Your task to perform on an android device: move a message to another label in the gmail app Image 0: 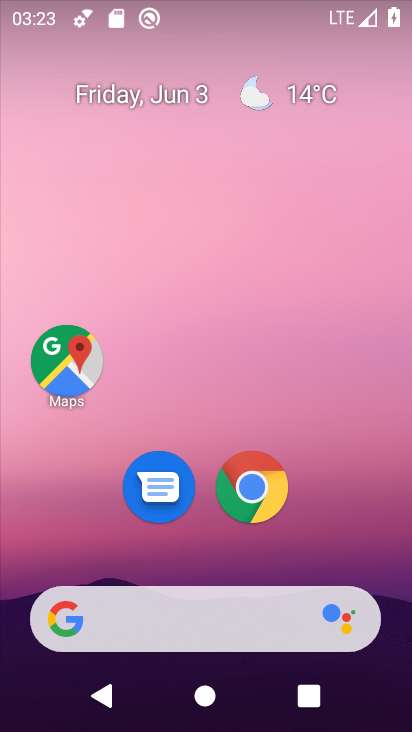
Step 0: drag from (302, 366) to (122, 19)
Your task to perform on an android device: move a message to another label in the gmail app Image 1: 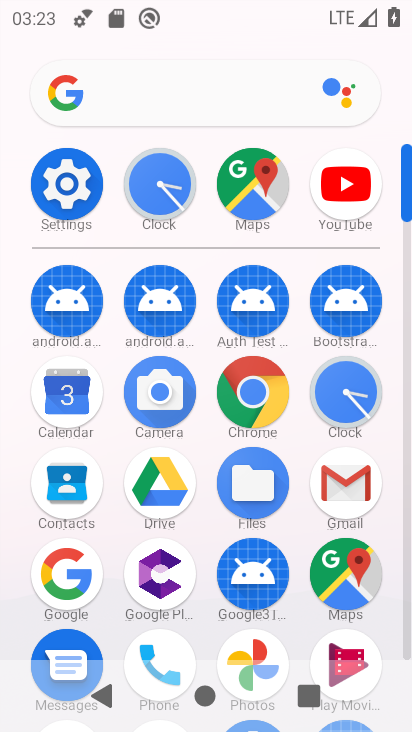
Step 1: click (356, 482)
Your task to perform on an android device: move a message to another label in the gmail app Image 2: 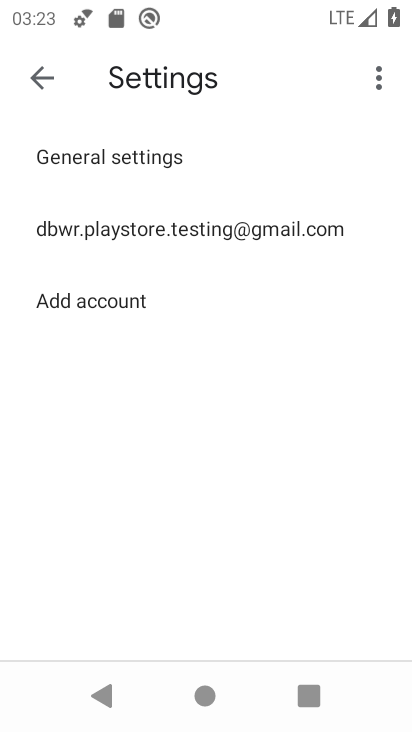
Step 2: click (35, 66)
Your task to perform on an android device: move a message to another label in the gmail app Image 3: 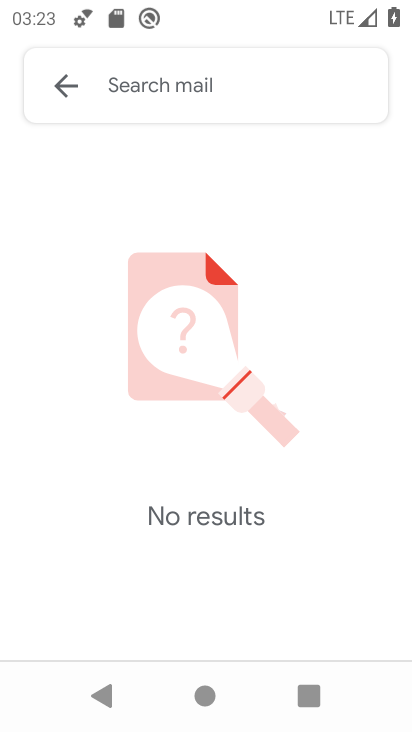
Step 3: click (62, 80)
Your task to perform on an android device: move a message to another label in the gmail app Image 4: 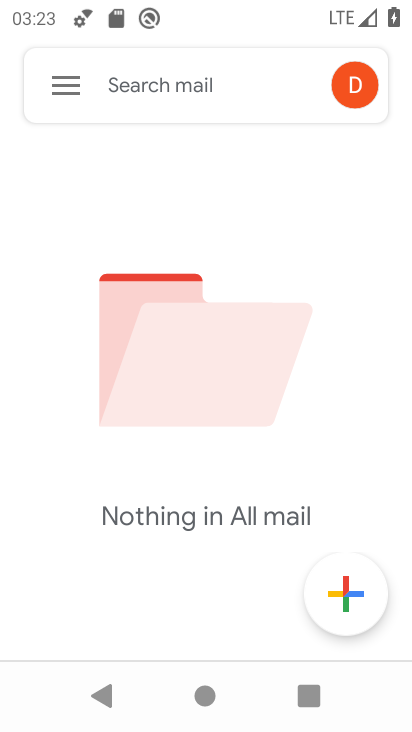
Step 4: task complete